Your task to perform on an android device: Go to battery settings Image 0: 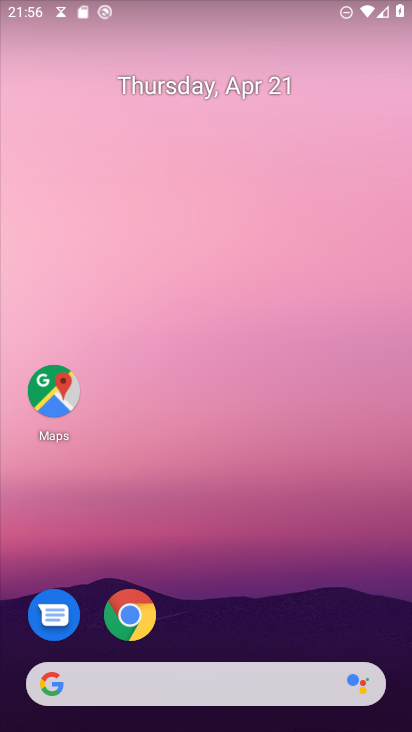
Step 0: drag from (213, 627) to (316, 283)
Your task to perform on an android device: Go to battery settings Image 1: 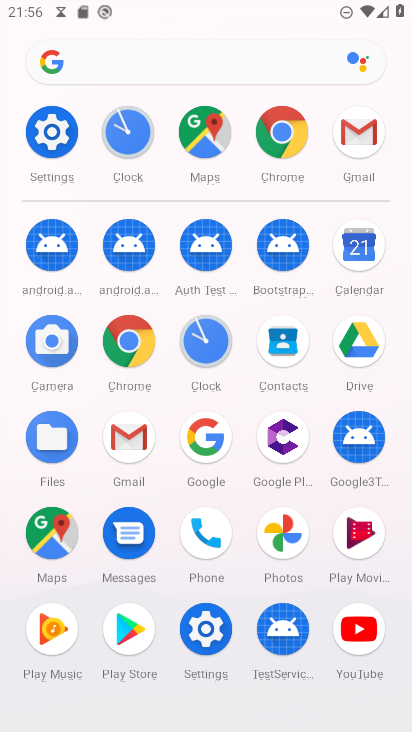
Step 1: click (201, 630)
Your task to perform on an android device: Go to battery settings Image 2: 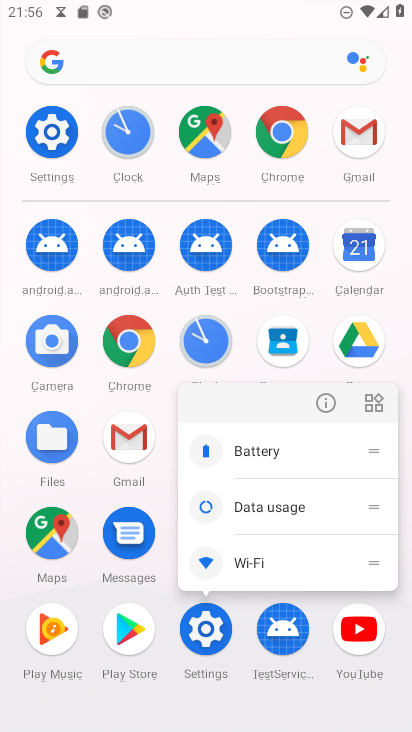
Step 2: click (328, 397)
Your task to perform on an android device: Go to battery settings Image 3: 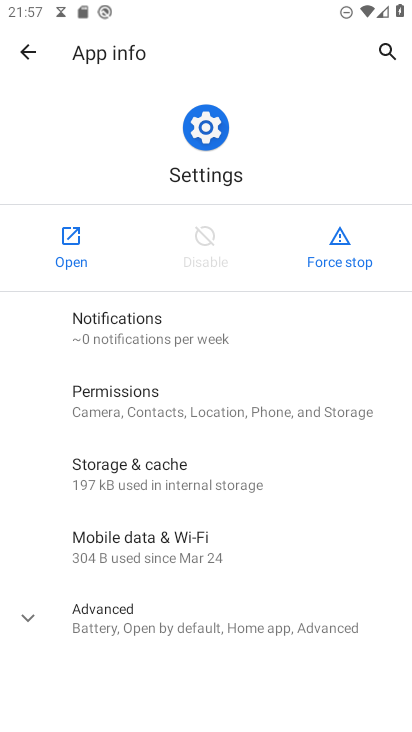
Step 3: click (65, 253)
Your task to perform on an android device: Go to battery settings Image 4: 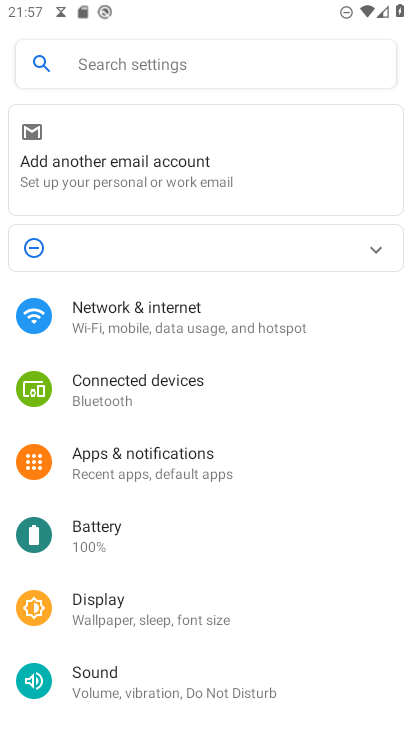
Step 4: click (118, 542)
Your task to perform on an android device: Go to battery settings Image 5: 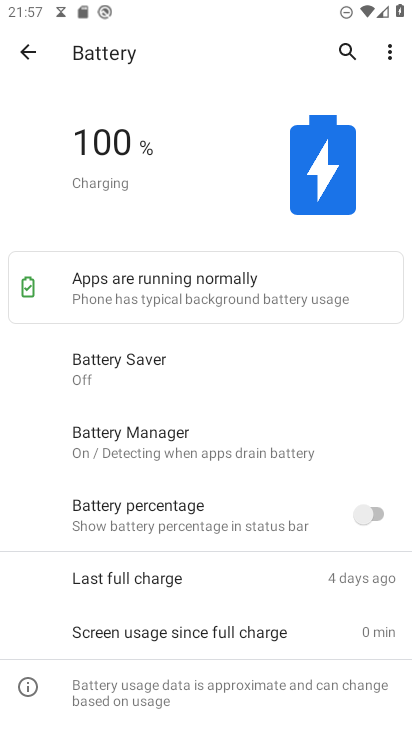
Step 5: task complete